Your task to perform on an android device: check data usage Image 0: 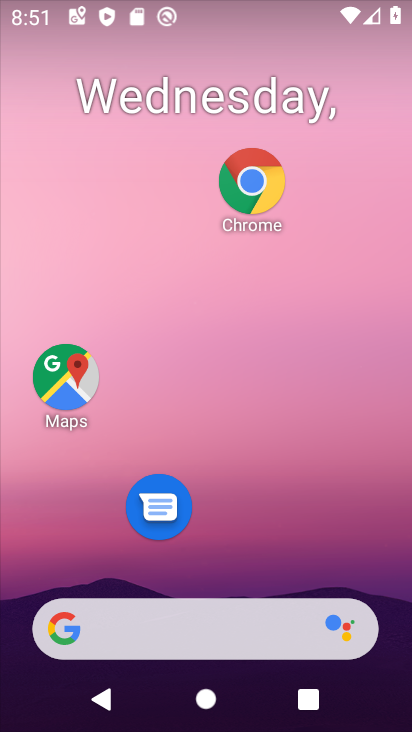
Step 0: drag from (221, 521) to (255, 296)
Your task to perform on an android device: check data usage Image 1: 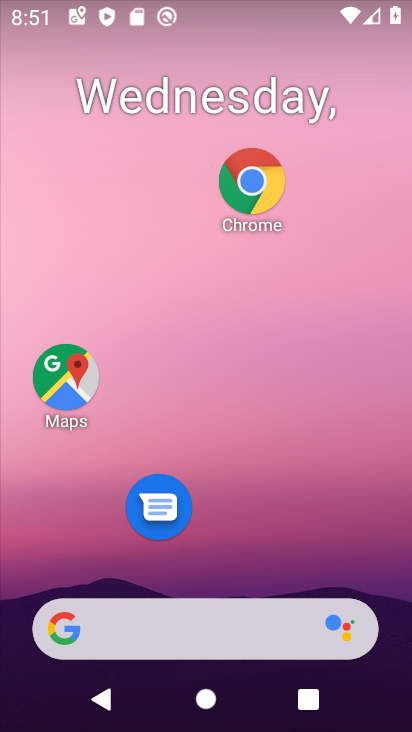
Step 1: drag from (243, 622) to (286, 238)
Your task to perform on an android device: check data usage Image 2: 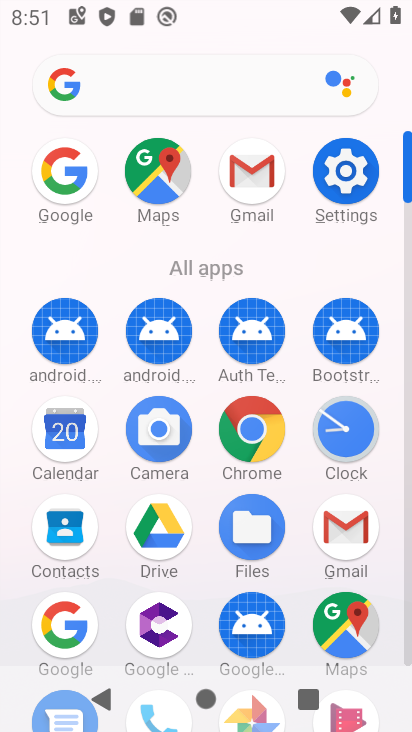
Step 2: click (343, 182)
Your task to perform on an android device: check data usage Image 3: 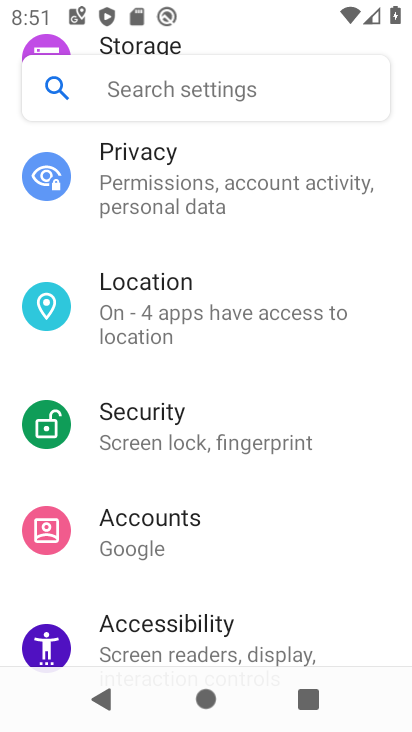
Step 3: drag from (208, 279) to (230, 517)
Your task to perform on an android device: check data usage Image 4: 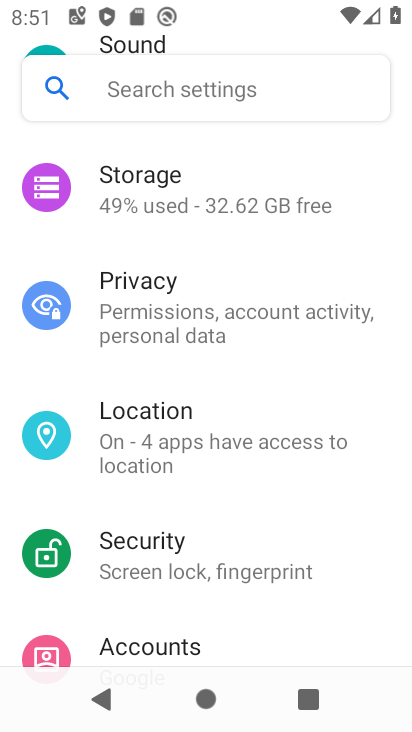
Step 4: drag from (237, 291) to (229, 550)
Your task to perform on an android device: check data usage Image 5: 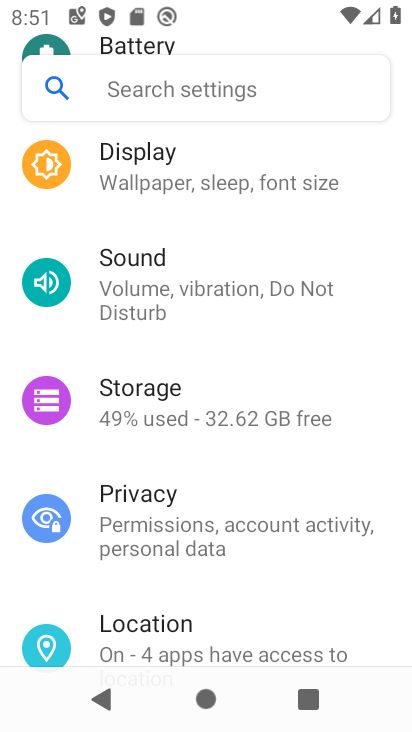
Step 5: drag from (215, 315) to (251, 562)
Your task to perform on an android device: check data usage Image 6: 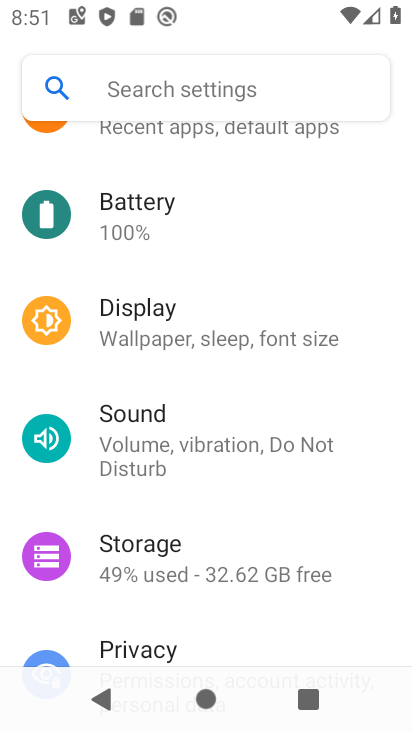
Step 6: drag from (236, 358) to (233, 540)
Your task to perform on an android device: check data usage Image 7: 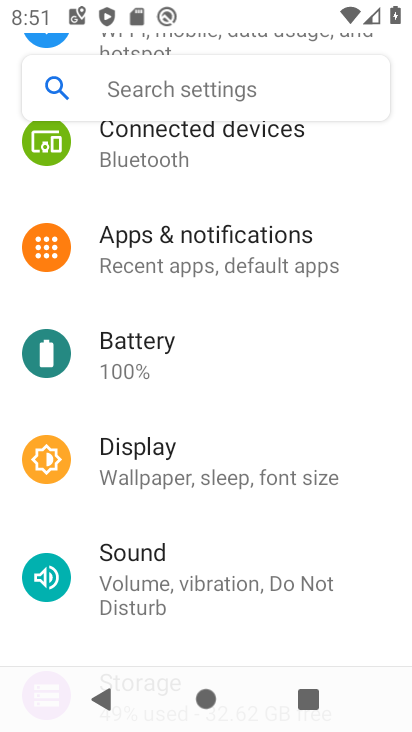
Step 7: drag from (222, 349) to (216, 596)
Your task to perform on an android device: check data usage Image 8: 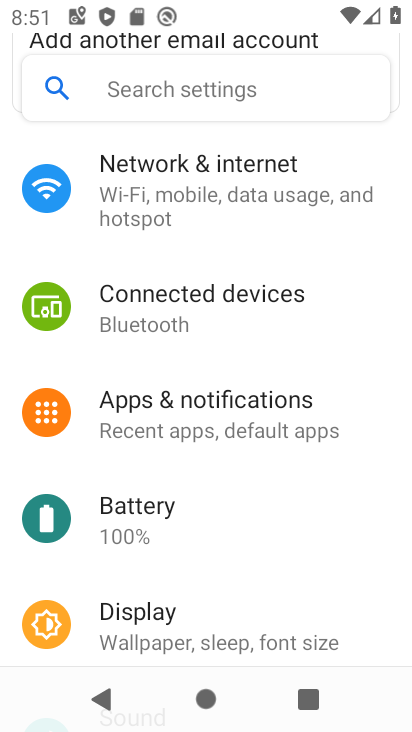
Step 8: drag from (222, 362) to (231, 563)
Your task to perform on an android device: check data usage Image 9: 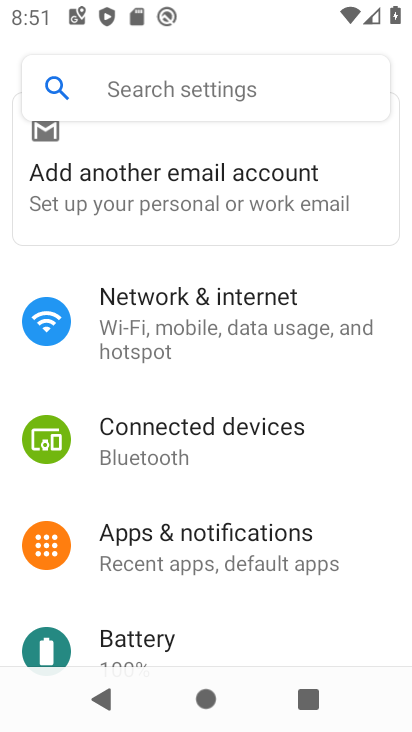
Step 9: click (229, 345)
Your task to perform on an android device: check data usage Image 10: 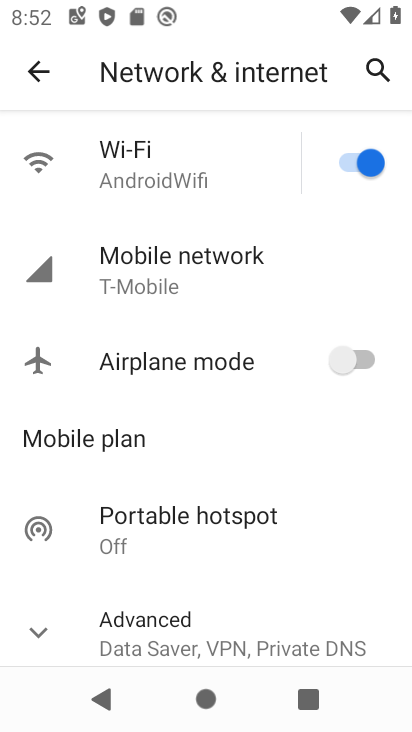
Step 10: click (194, 296)
Your task to perform on an android device: check data usage Image 11: 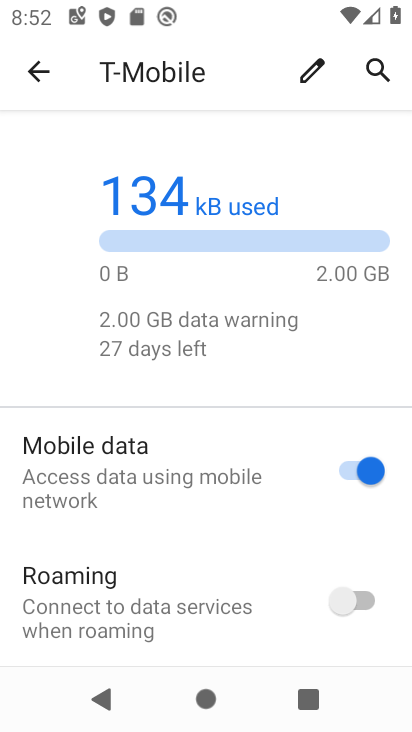
Step 11: drag from (186, 503) to (245, 276)
Your task to perform on an android device: check data usage Image 12: 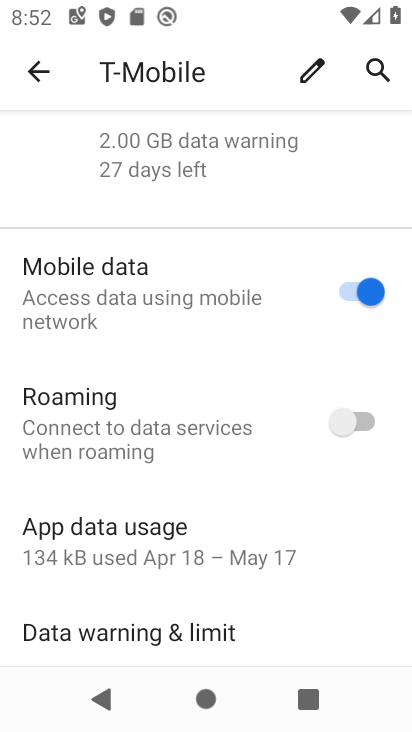
Step 12: click (177, 531)
Your task to perform on an android device: check data usage Image 13: 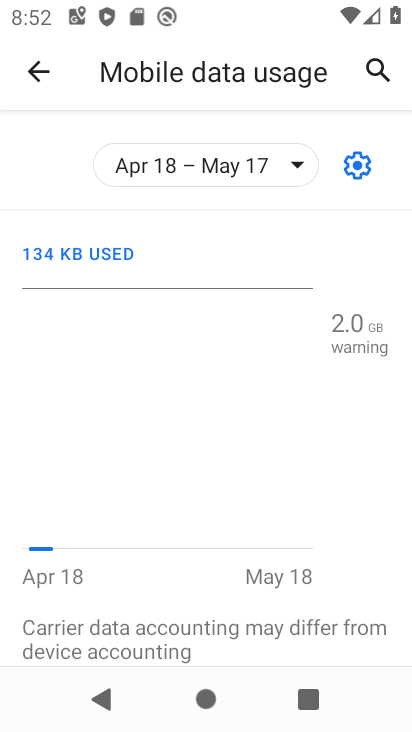
Step 13: task complete